Your task to perform on an android device: open chrome and create a bookmark for the current page Image 0: 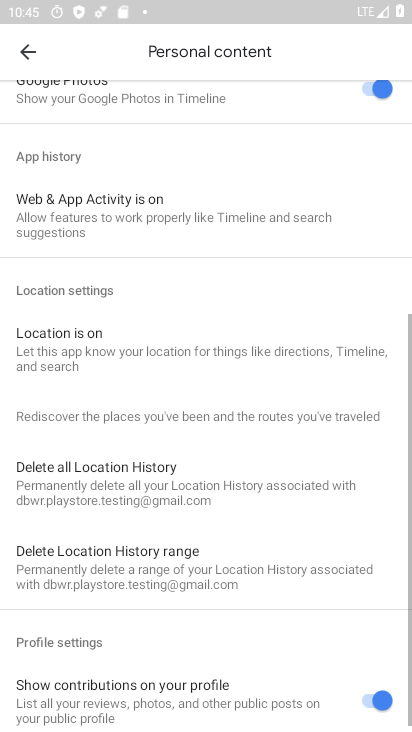
Step 0: press home button
Your task to perform on an android device: open chrome and create a bookmark for the current page Image 1: 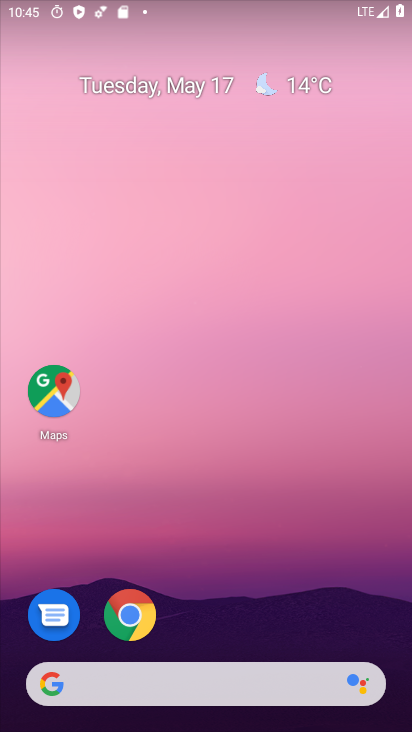
Step 1: click (121, 612)
Your task to perform on an android device: open chrome and create a bookmark for the current page Image 2: 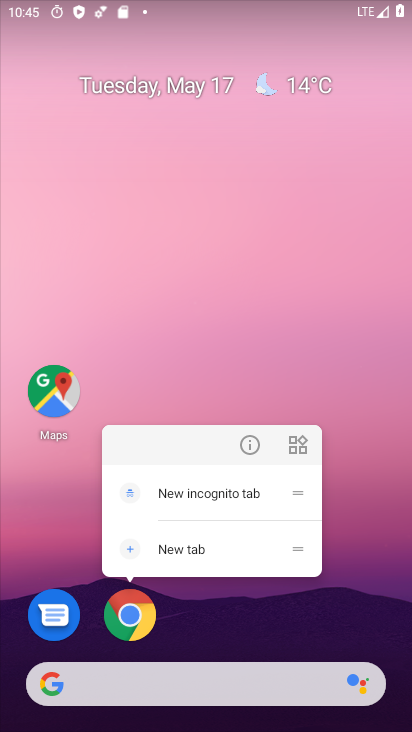
Step 2: click (145, 619)
Your task to perform on an android device: open chrome and create a bookmark for the current page Image 3: 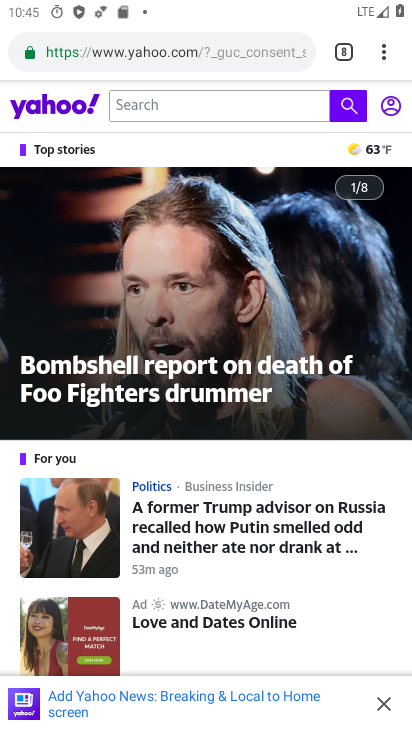
Step 3: click (381, 69)
Your task to perform on an android device: open chrome and create a bookmark for the current page Image 4: 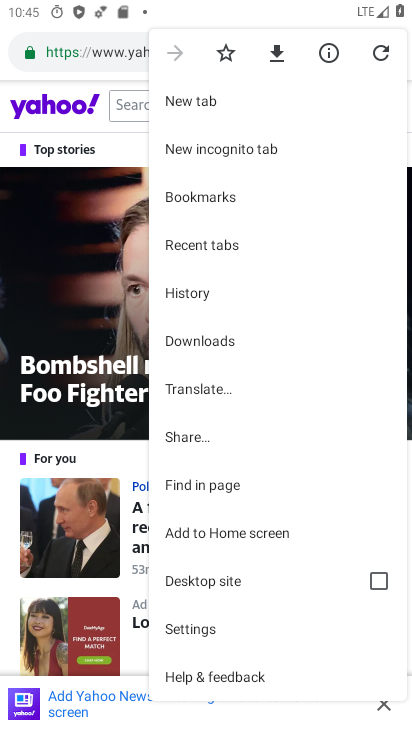
Step 4: click (229, 53)
Your task to perform on an android device: open chrome and create a bookmark for the current page Image 5: 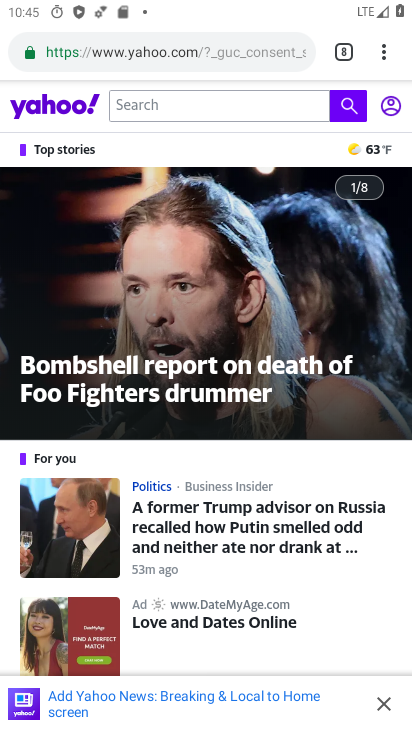
Step 5: task complete